Your task to perform on an android device: turn on showing notifications on the lock screen Image 0: 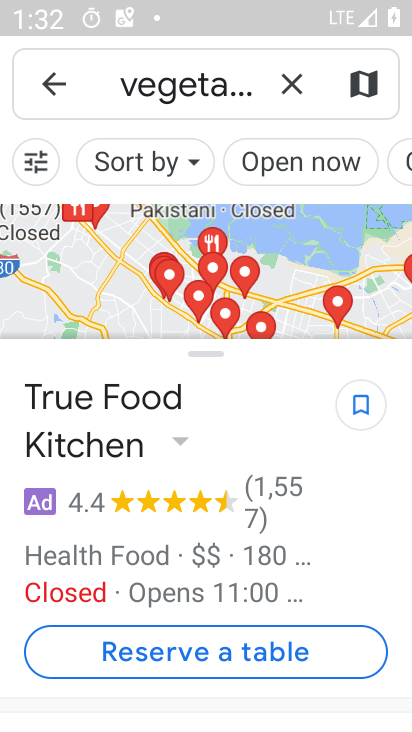
Step 0: press home button
Your task to perform on an android device: turn on showing notifications on the lock screen Image 1: 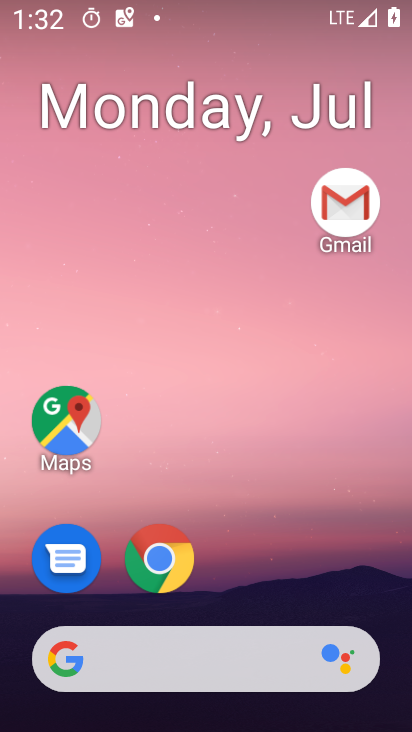
Step 1: drag from (326, 580) to (363, 193)
Your task to perform on an android device: turn on showing notifications on the lock screen Image 2: 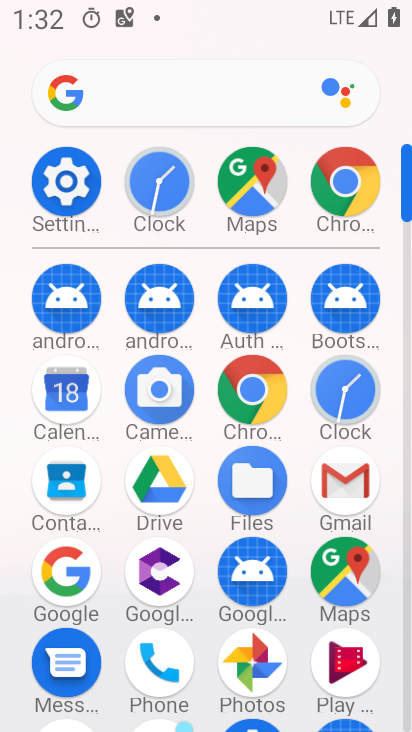
Step 2: click (81, 188)
Your task to perform on an android device: turn on showing notifications on the lock screen Image 3: 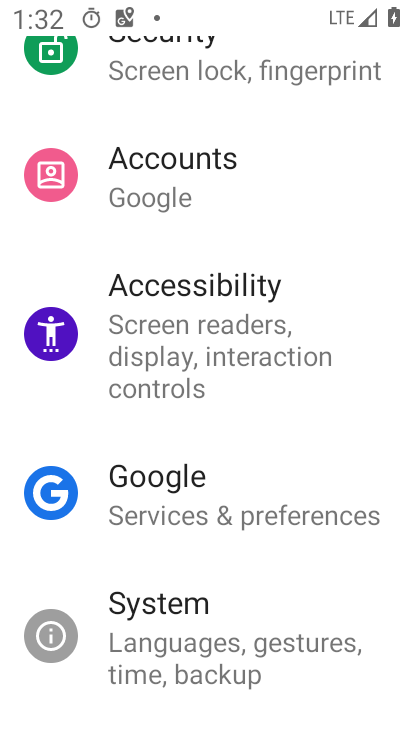
Step 3: drag from (315, 194) to (327, 272)
Your task to perform on an android device: turn on showing notifications on the lock screen Image 4: 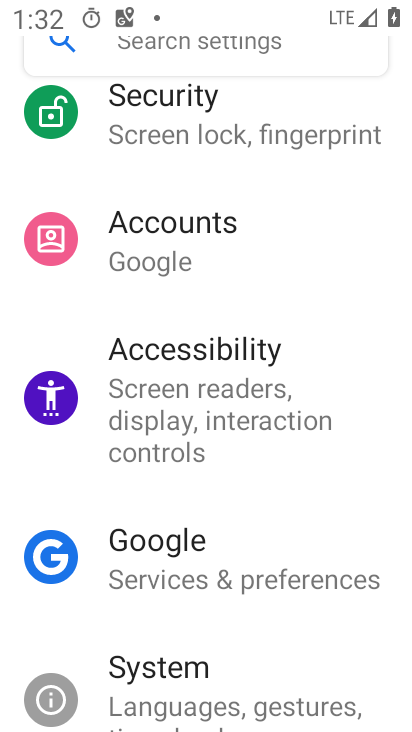
Step 4: drag from (343, 205) to (367, 282)
Your task to perform on an android device: turn on showing notifications on the lock screen Image 5: 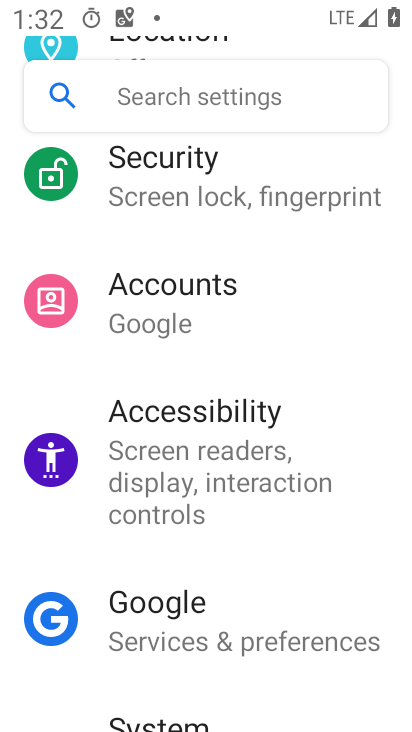
Step 5: drag from (363, 242) to (365, 290)
Your task to perform on an android device: turn on showing notifications on the lock screen Image 6: 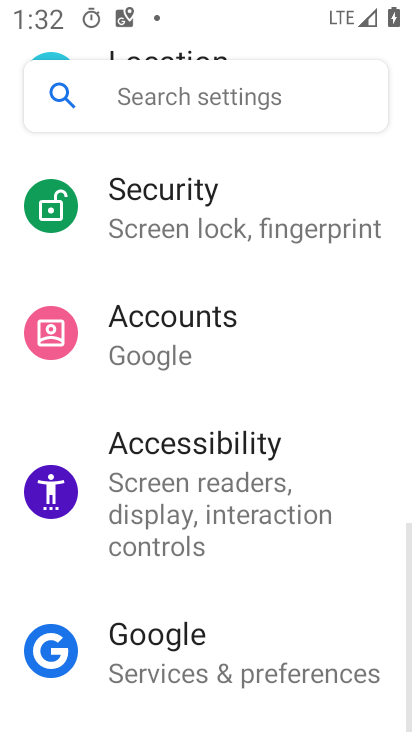
Step 6: drag from (355, 264) to (367, 335)
Your task to perform on an android device: turn on showing notifications on the lock screen Image 7: 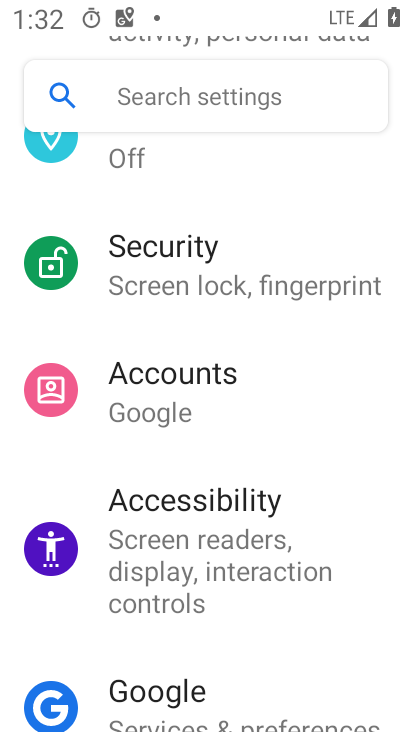
Step 7: drag from (354, 238) to (368, 353)
Your task to perform on an android device: turn on showing notifications on the lock screen Image 8: 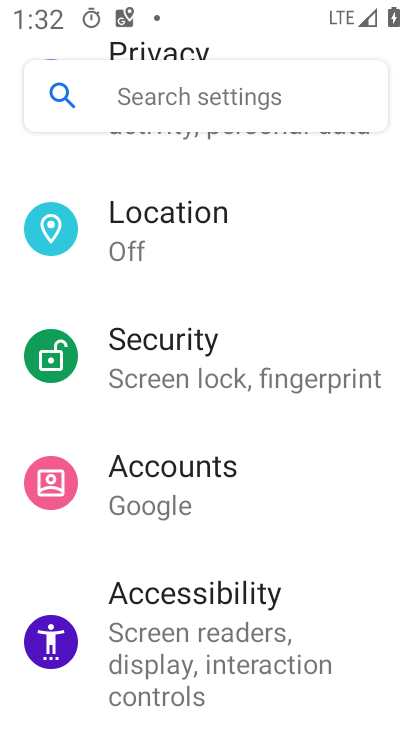
Step 8: drag from (345, 274) to (351, 369)
Your task to perform on an android device: turn on showing notifications on the lock screen Image 9: 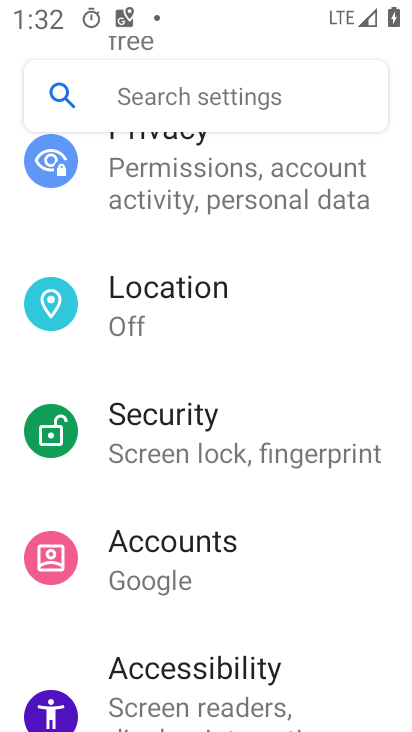
Step 9: drag from (344, 304) to (334, 414)
Your task to perform on an android device: turn on showing notifications on the lock screen Image 10: 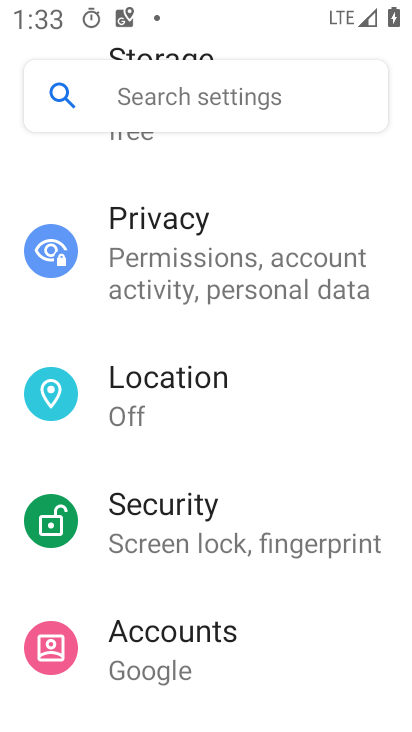
Step 10: drag from (321, 358) to (325, 430)
Your task to perform on an android device: turn on showing notifications on the lock screen Image 11: 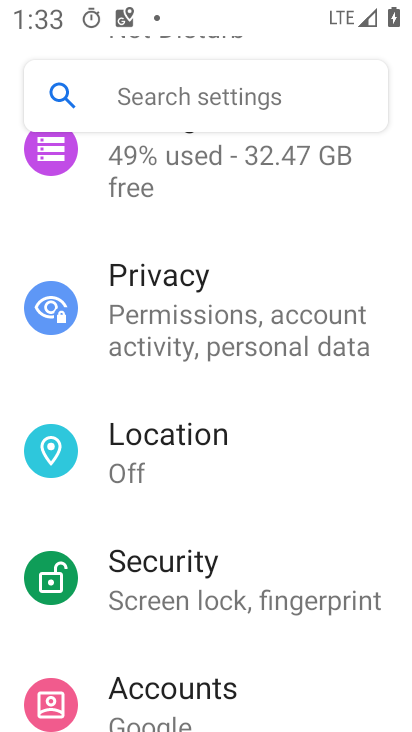
Step 11: drag from (356, 270) to (358, 368)
Your task to perform on an android device: turn on showing notifications on the lock screen Image 12: 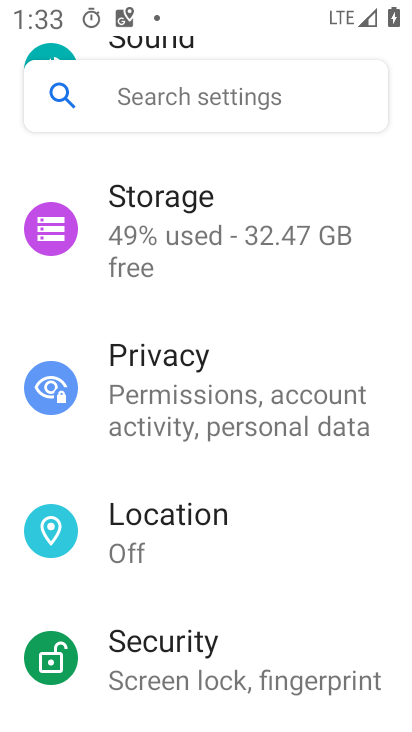
Step 12: drag from (371, 278) to (381, 355)
Your task to perform on an android device: turn on showing notifications on the lock screen Image 13: 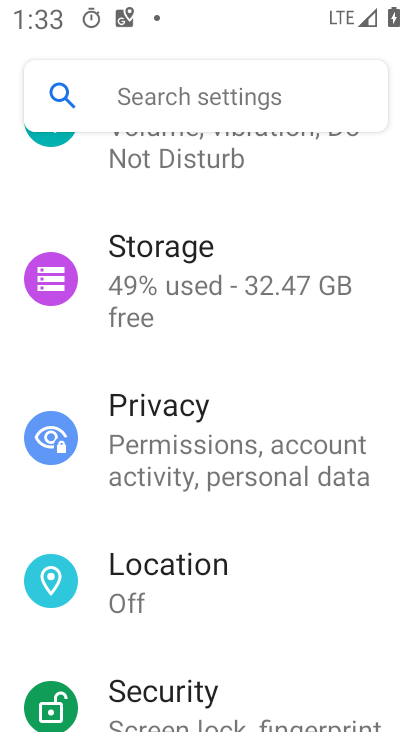
Step 13: drag from (384, 224) to (373, 381)
Your task to perform on an android device: turn on showing notifications on the lock screen Image 14: 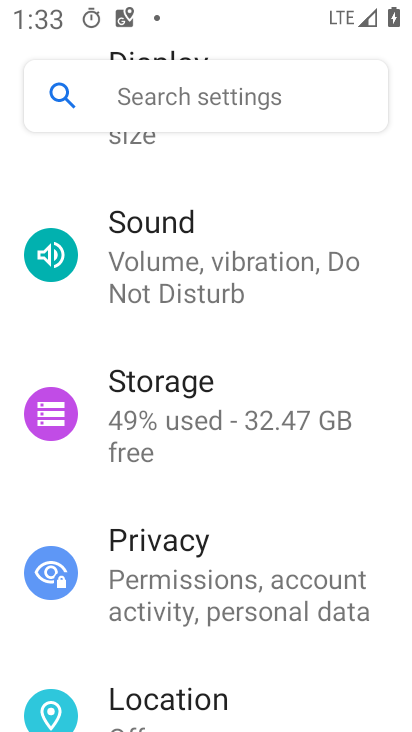
Step 14: drag from (345, 329) to (350, 391)
Your task to perform on an android device: turn on showing notifications on the lock screen Image 15: 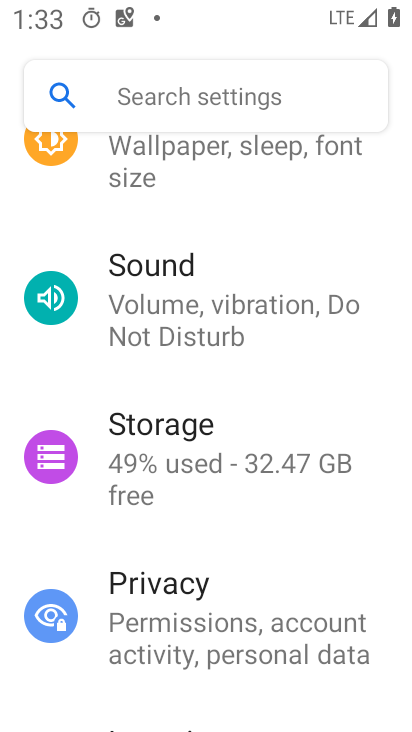
Step 15: drag from (357, 348) to (362, 405)
Your task to perform on an android device: turn on showing notifications on the lock screen Image 16: 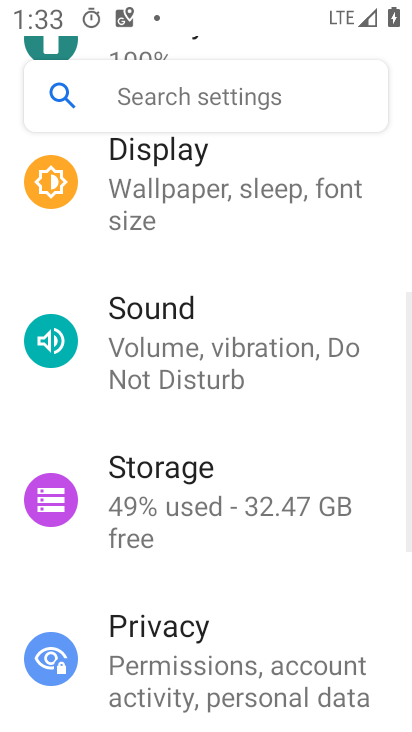
Step 16: drag from (377, 325) to (378, 403)
Your task to perform on an android device: turn on showing notifications on the lock screen Image 17: 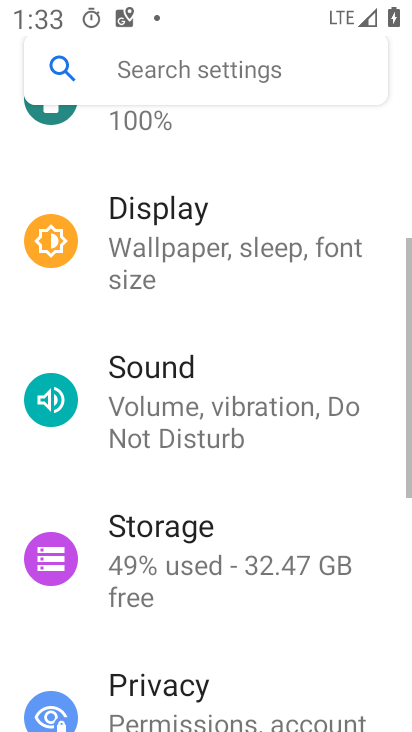
Step 17: drag from (378, 418) to (379, 500)
Your task to perform on an android device: turn on showing notifications on the lock screen Image 18: 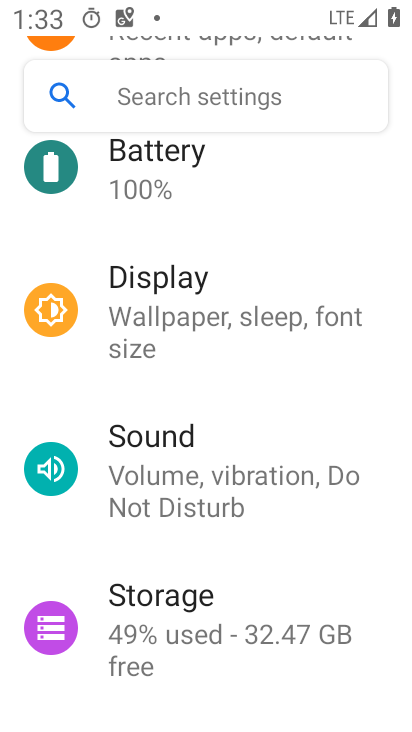
Step 18: drag from (356, 359) to (372, 481)
Your task to perform on an android device: turn on showing notifications on the lock screen Image 19: 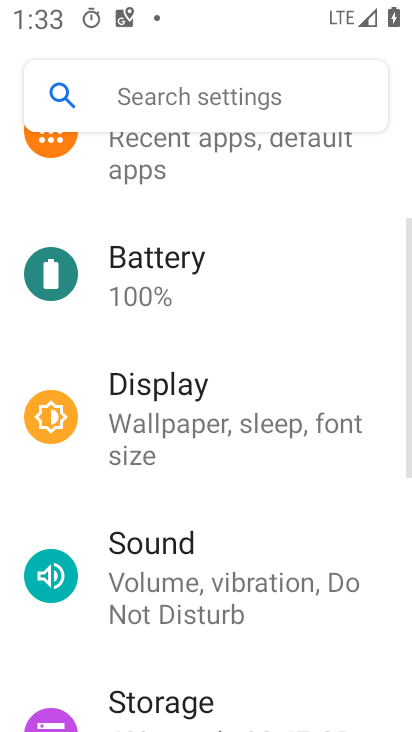
Step 19: drag from (363, 287) to (355, 468)
Your task to perform on an android device: turn on showing notifications on the lock screen Image 20: 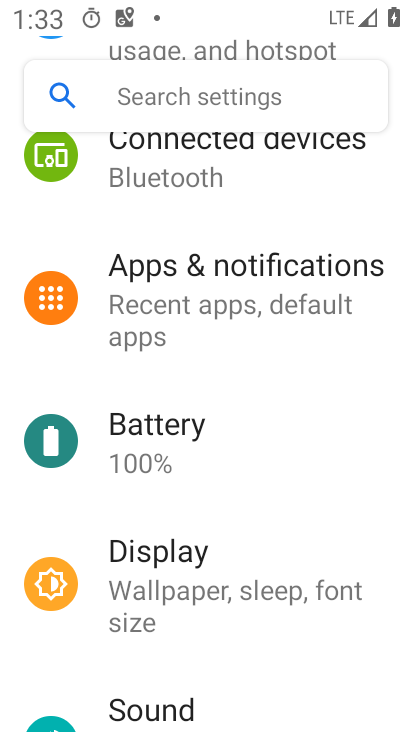
Step 20: drag from (337, 425) to (342, 504)
Your task to perform on an android device: turn on showing notifications on the lock screen Image 21: 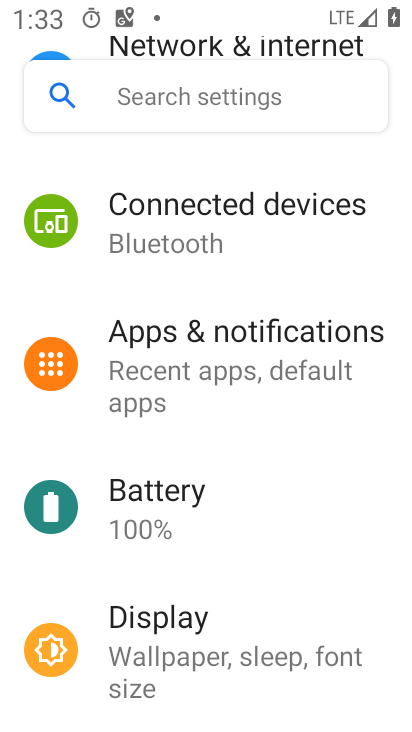
Step 21: drag from (339, 492) to (343, 577)
Your task to perform on an android device: turn on showing notifications on the lock screen Image 22: 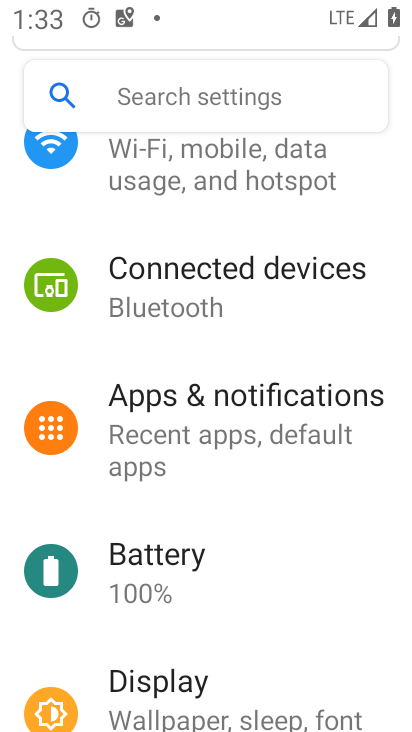
Step 22: click (299, 419)
Your task to perform on an android device: turn on showing notifications on the lock screen Image 23: 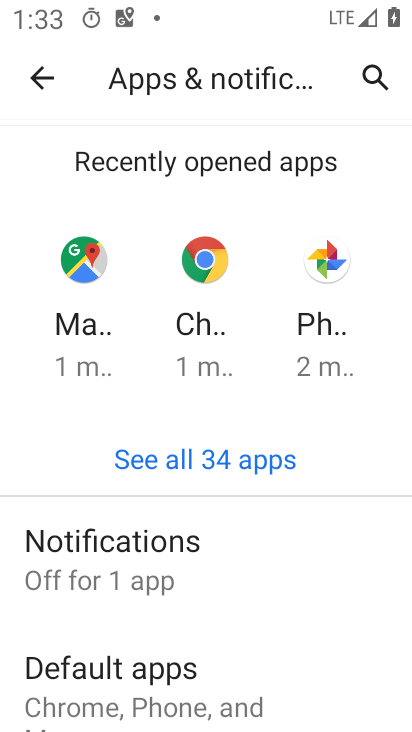
Step 23: click (144, 580)
Your task to perform on an android device: turn on showing notifications on the lock screen Image 24: 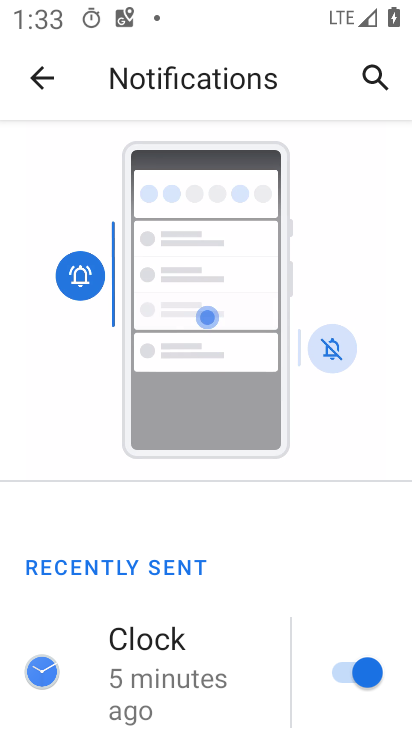
Step 24: drag from (328, 584) to (317, 447)
Your task to perform on an android device: turn on showing notifications on the lock screen Image 25: 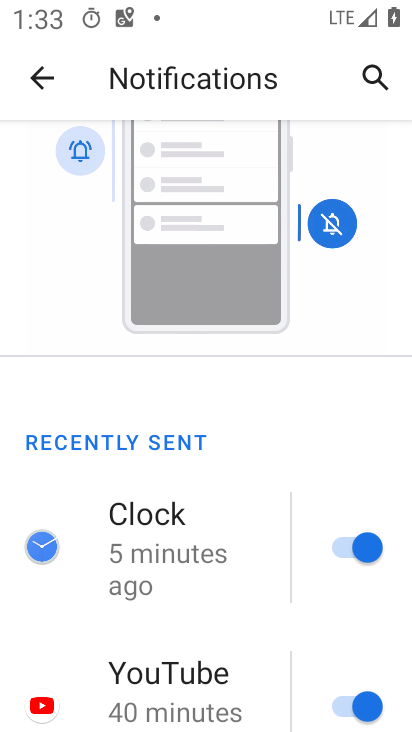
Step 25: drag from (260, 612) to (251, 472)
Your task to perform on an android device: turn on showing notifications on the lock screen Image 26: 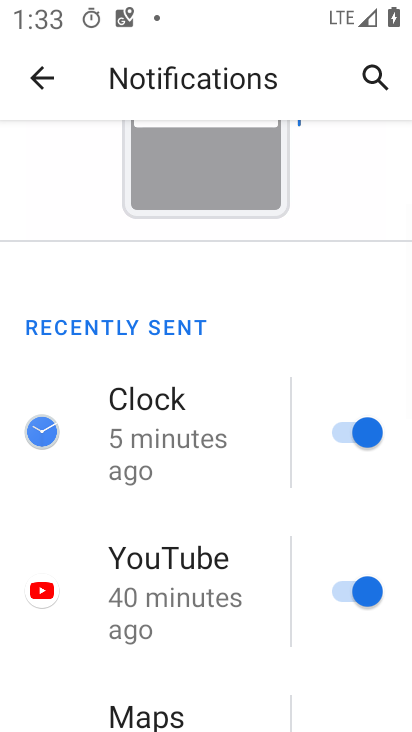
Step 26: drag from (257, 651) to (265, 498)
Your task to perform on an android device: turn on showing notifications on the lock screen Image 27: 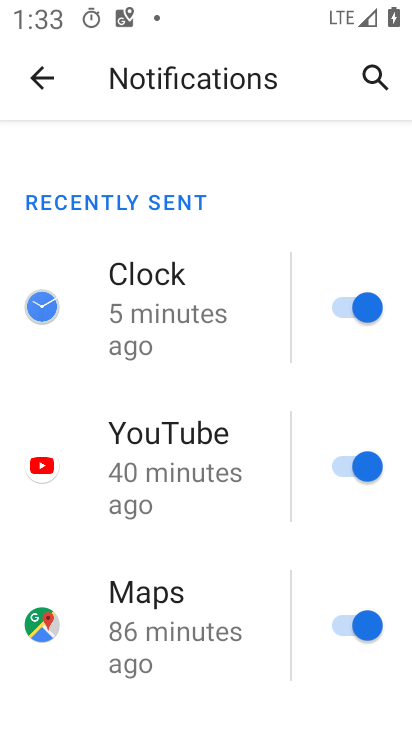
Step 27: drag from (265, 643) to (268, 504)
Your task to perform on an android device: turn on showing notifications on the lock screen Image 28: 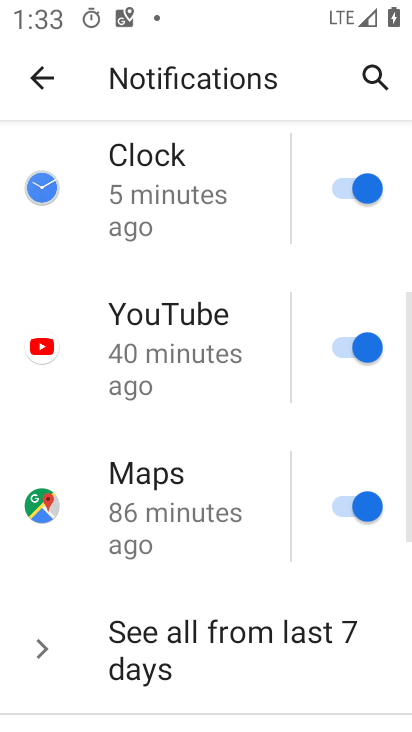
Step 28: drag from (251, 673) to (255, 532)
Your task to perform on an android device: turn on showing notifications on the lock screen Image 29: 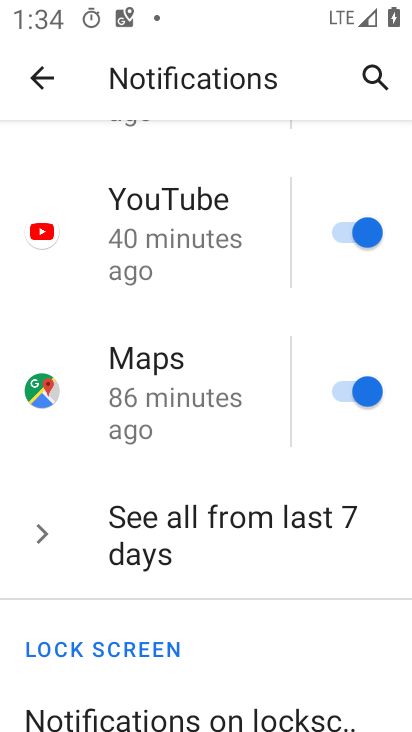
Step 29: drag from (254, 658) to (260, 549)
Your task to perform on an android device: turn on showing notifications on the lock screen Image 30: 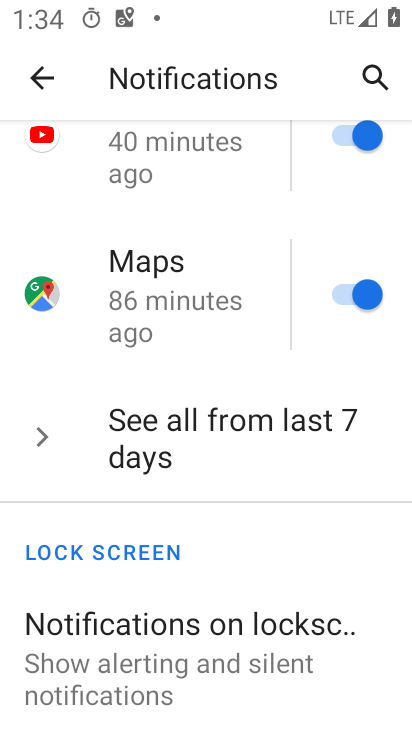
Step 30: click (179, 646)
Your task to perform on an android device: turn on showing notifications on the lock screen Image 31: 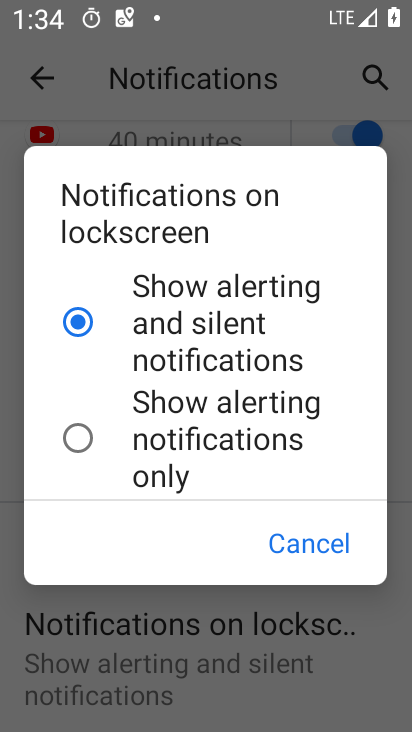
Step 31: task complete